Your task to perform on an android device: open sync settings in chrome Image 0: 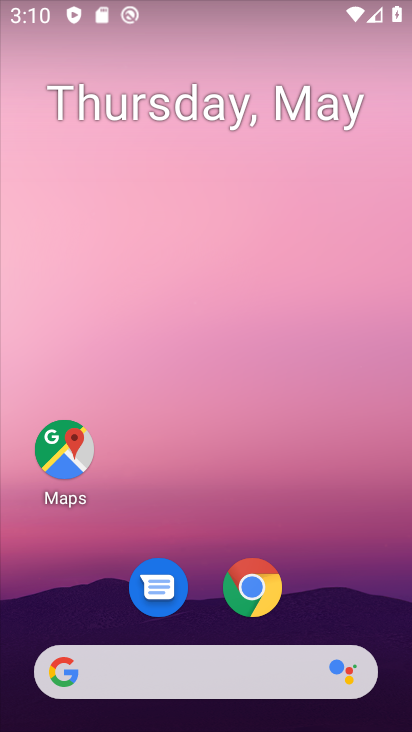
Step 0: drag from (306, 556) to (220, 26)
Your task to perform on an android device: open sync settings in chrome Image 1: 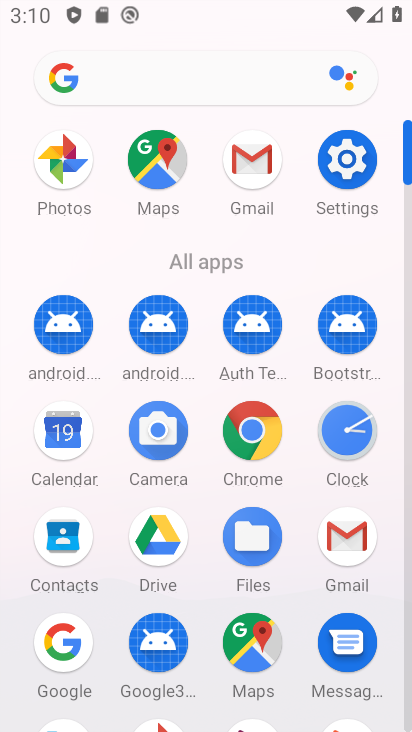
Step 1: drag from (15, 563) to (2, 273)
Your task to perform on an android device: open sync settings in chrome Image 2: 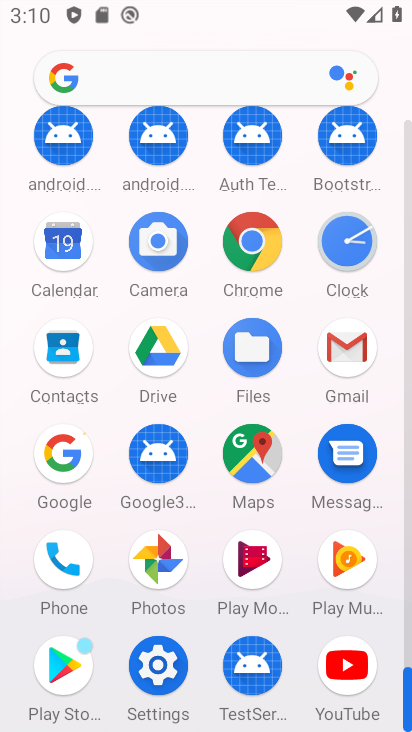
Step 2: click (250, 238)
Your task to perform on an android device: open sync settings in chrome Image 3: 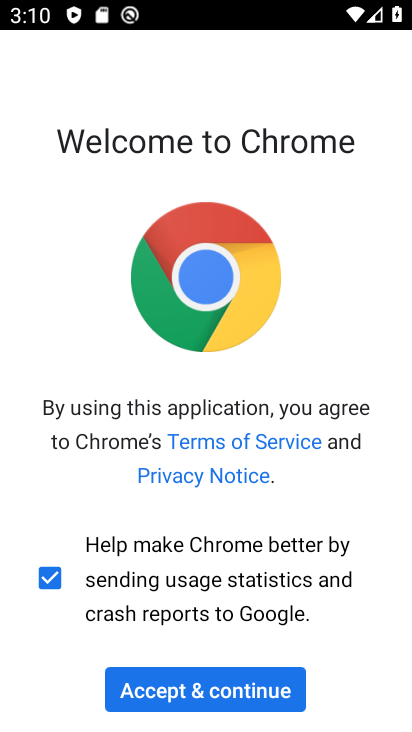
Step 3: click (219, 691)
Your task to perform on an android device: open sync settings in chrome Image 4: 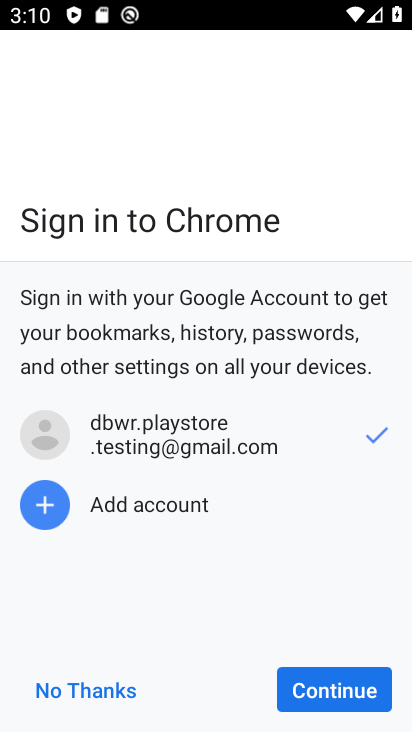
Step 4: click (318, 701)
Your task to perform on an android device: open sync settings in chrome Image 5: 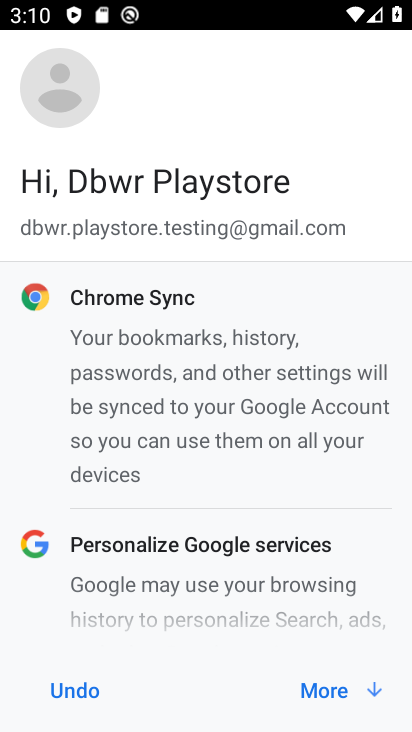
Step 5: click (314, 688)
Your task to perform on an android device: open sync settings in chrome Image 6: 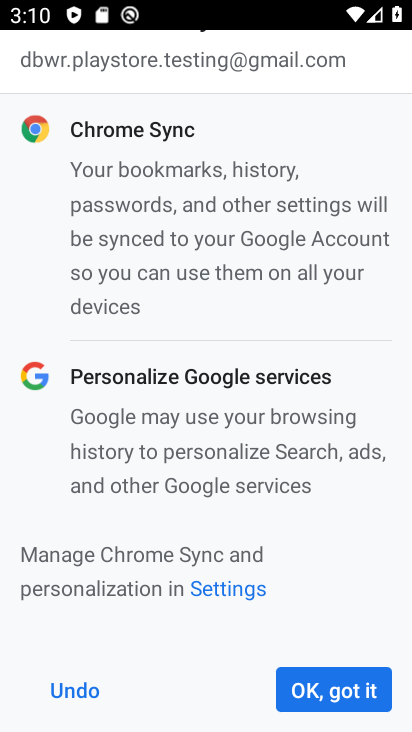
Step 6: click (335, 690)
Your task to perform on an android device: open sync settings in chrome Image 7: 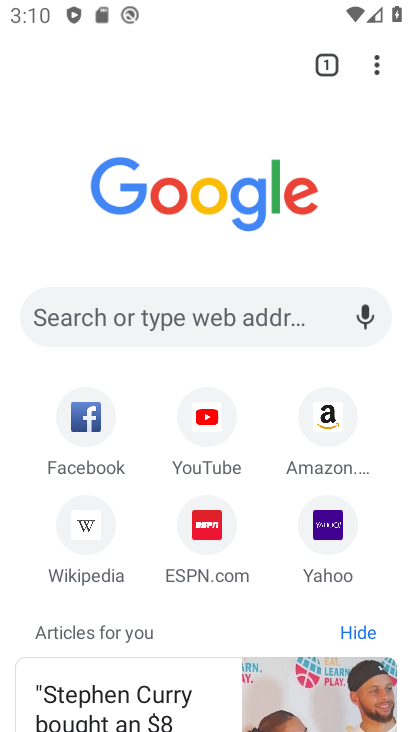
Step 7: drag from (376, 62) to (207, 563)
Your task to perform on an android device: open sync settings in chrome Image 8: 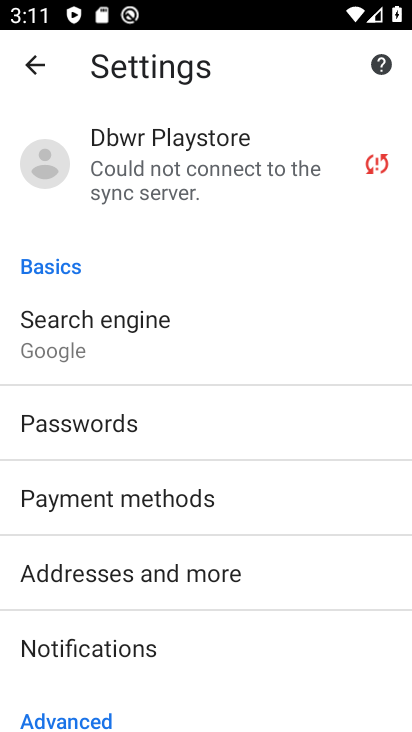
Step 8: drag from (315, 566) to (315, 405)
Your task to perform on an android device: open sync settings in chrome Image 9: 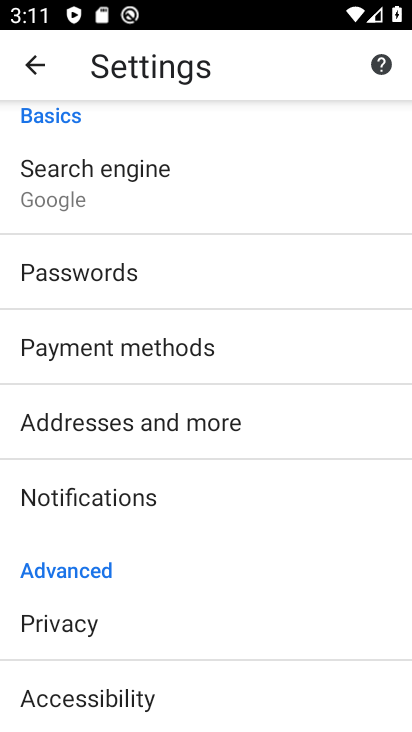
Step 9: drag from (240, 205) to (265, 638)
Your task to perform on an android device: open sync settings in chrome Image 10: 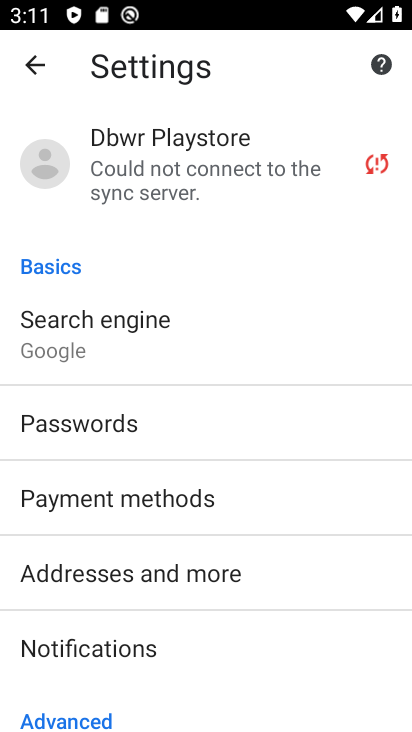
Step 10: click (193, 177)
Your task to perform on an android device: open sync settings in chrome Image 11: 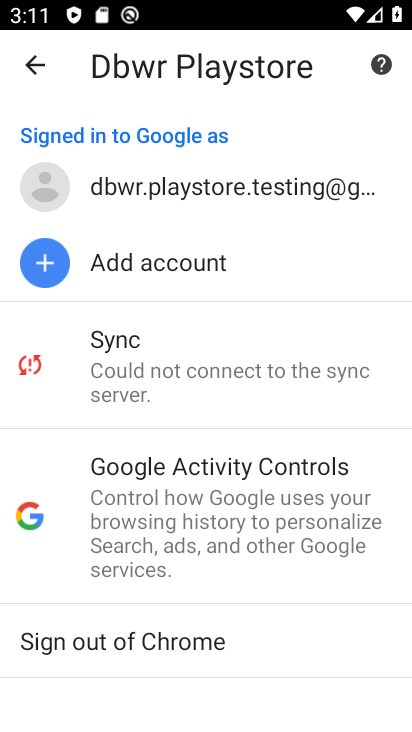
Step 11: task complete